Your task to perform on an android device: turn off data saver in the chrome app Image 0: 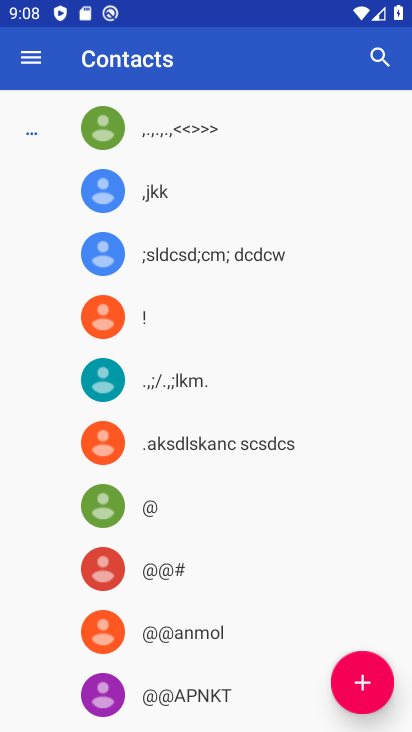
Step 0: press home button
Your task to perform on an android device: turn off data saver in the chrome app Image 1: 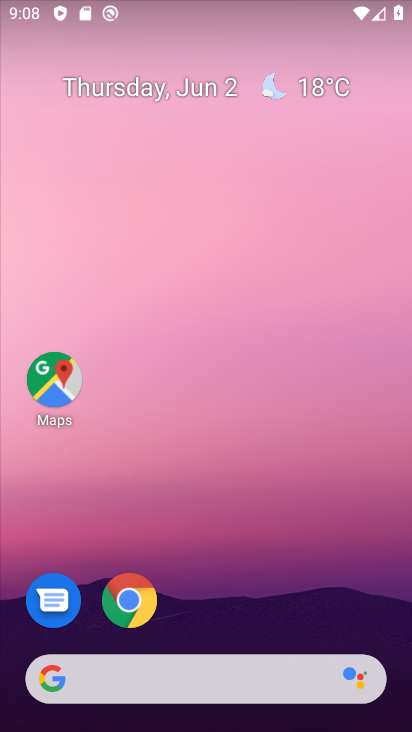
Step 1: click (133, 607)
Your task to perform on an android device: turn off data saver in the chrome app Image 2: 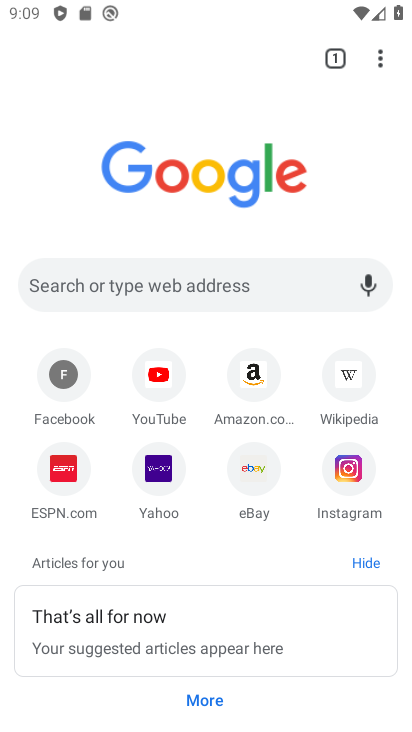
Step 2: click (370, 61)
Your task to perform on an android device: turn off data saver in the chrome app Image 3: 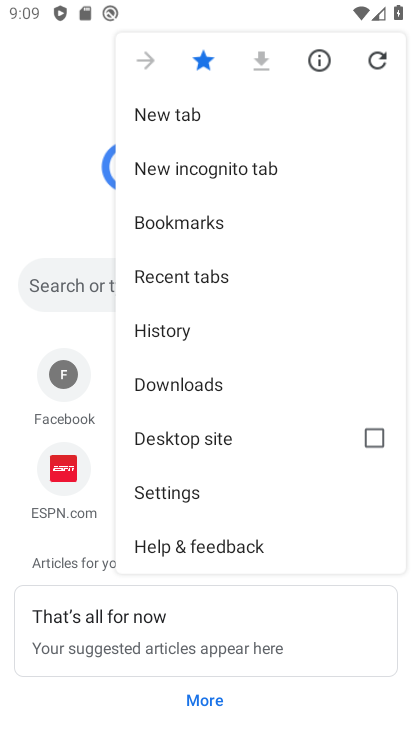
Step 3: click (145, 500)
Your task to perform on an android device: turn off data saver in the chrome app Image 4: 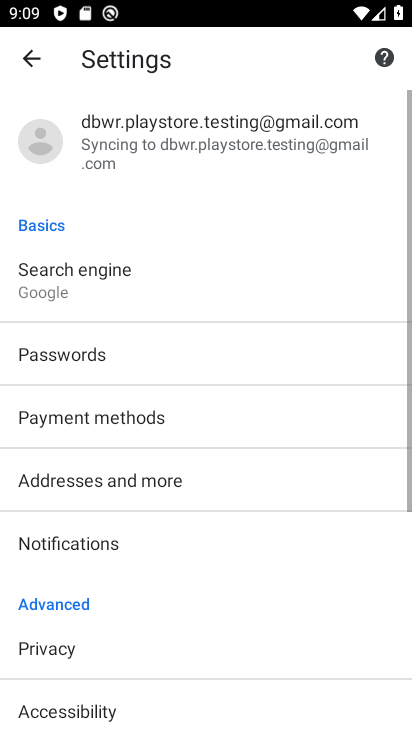
Step 4: drag from (228, 533) to (209, 60)
Your task to perform on an android device: turn off data saver in the chrome app Image 5: 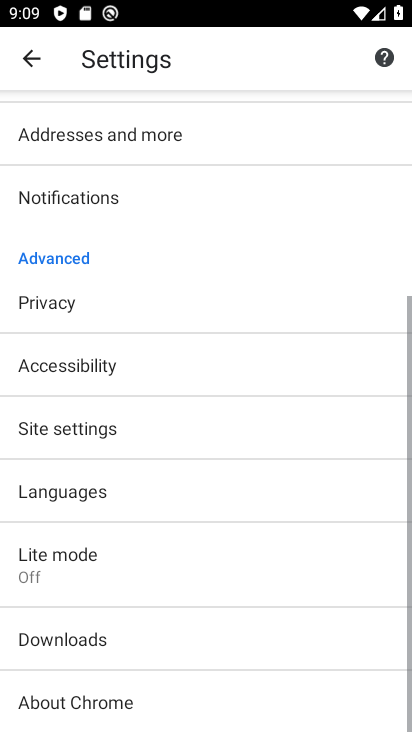
Step 5: click (80, 571)
Your task to perform on an android device: turn off data saver in the chrome app Image 6: 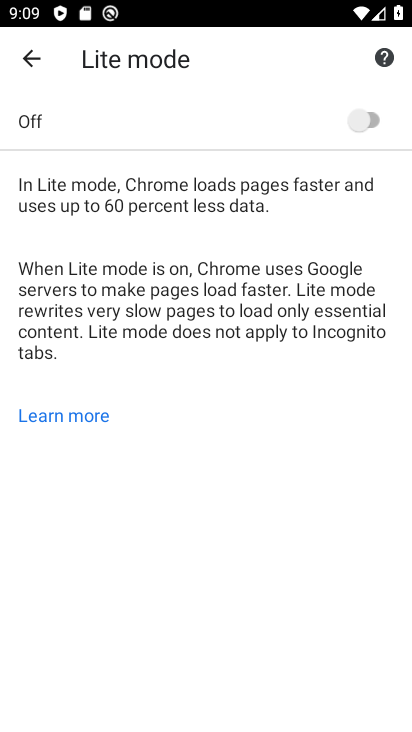
Step 6: task complete